Your task to perform on an android device: See recent photos Image 0: 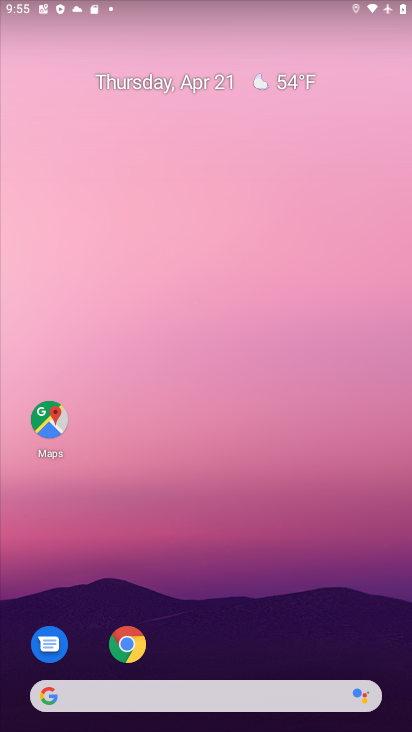
Step 0: drag from (164, 582) to (198, 194)
Your task to perform on an android device: See recent photos Image 1: 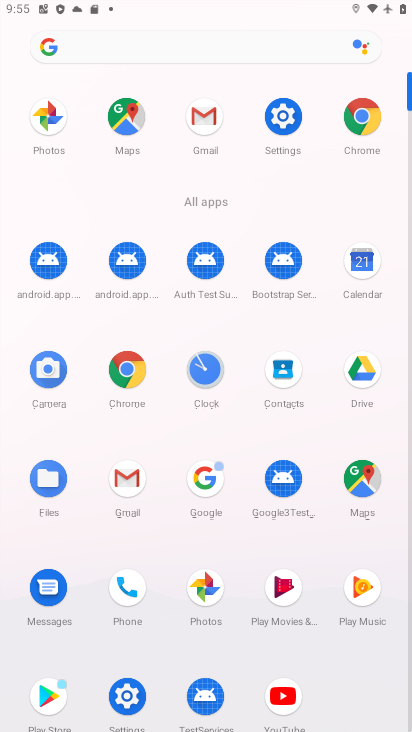
Step 1: click (48, 120)
Your task to perform on an android device: See recent photos Image 2: 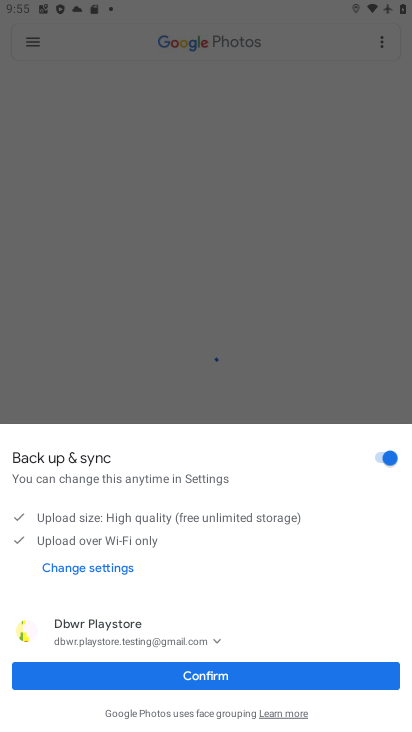
Step 2: click (202, 673)
Your task to perform on an android device: See recent photos Image 3: 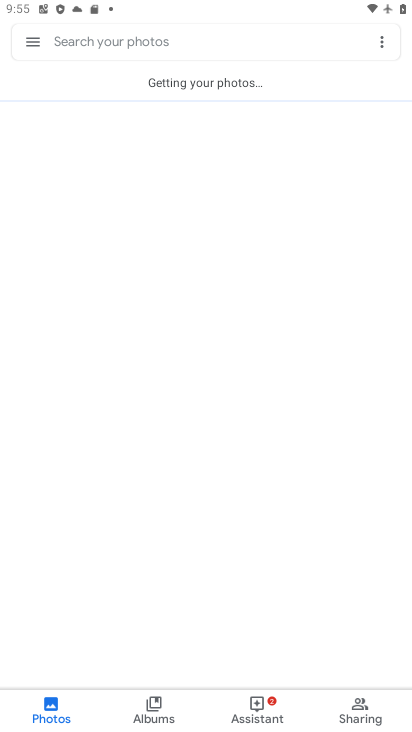
Step 3: click (144, 254)
Your task to perform on an android device: See recent photos Image 4: 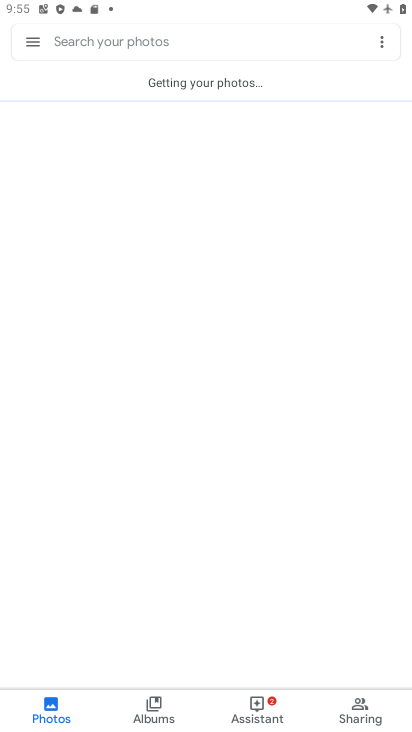
Step 4: click (40, 59)
Your task to perform on an android device: See recent photos Image 5: 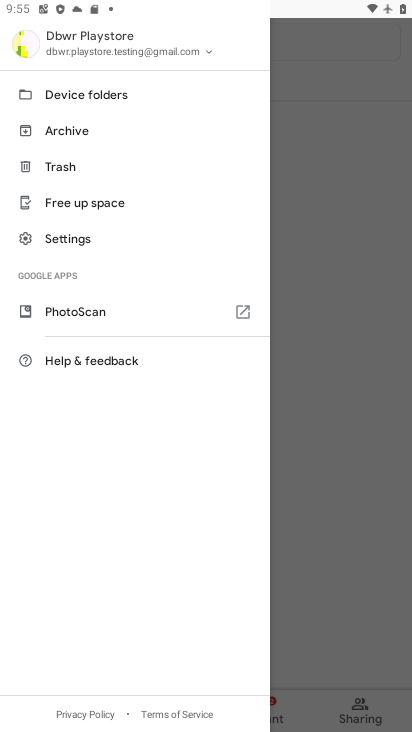
Step 5: click (333, 198)
Your task to perform on an android device: See recent photos Image 6: 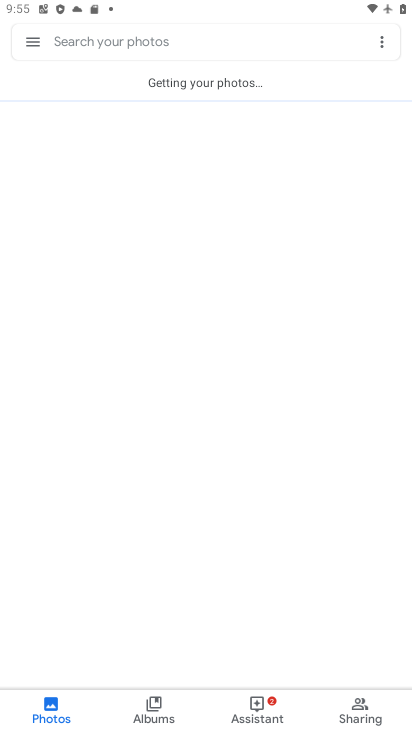
Step 6: click (273, 170)
Your task to perform on an android device: See recent photos Image 7: 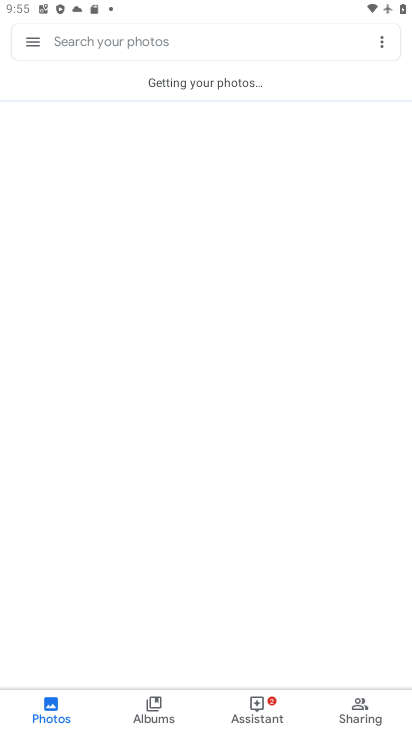
Step 7: task complete